Your task to perform on an android device: What's the weather today? Image 0: 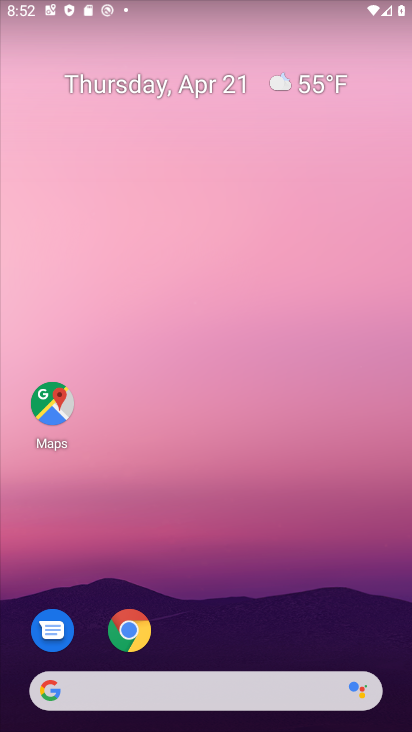
Step 0: click (274, 89)
Your task to perform on an android device: What's the weather today? Image 1: 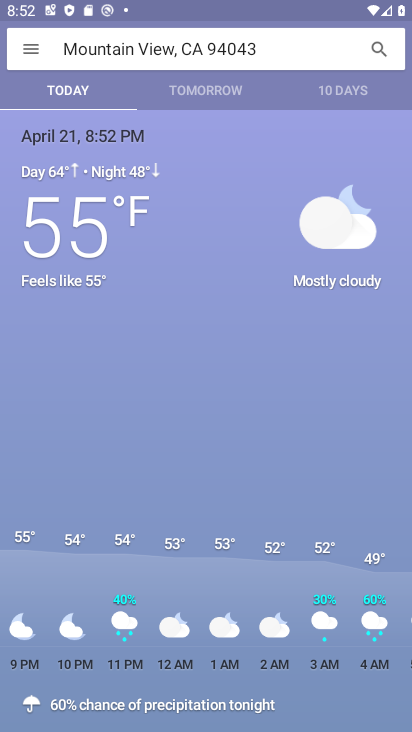
Step 1: task complete